Your task to perform on an android device: Go to location settings Image 0: 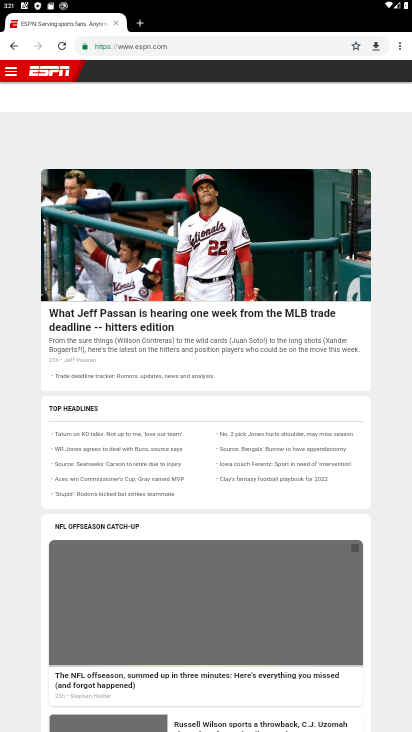
Step 0: press home button
Your task to perform on an android device: Go to location settings Image 1: 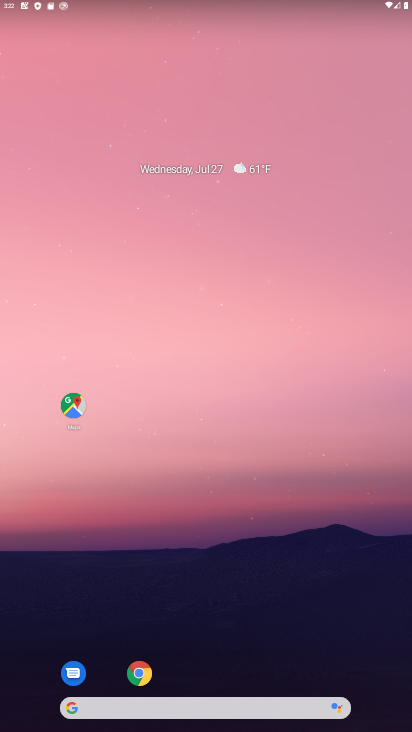
Step 1: click (345, 653)
Your task to perform on an android device: Go to location settings Image 2: 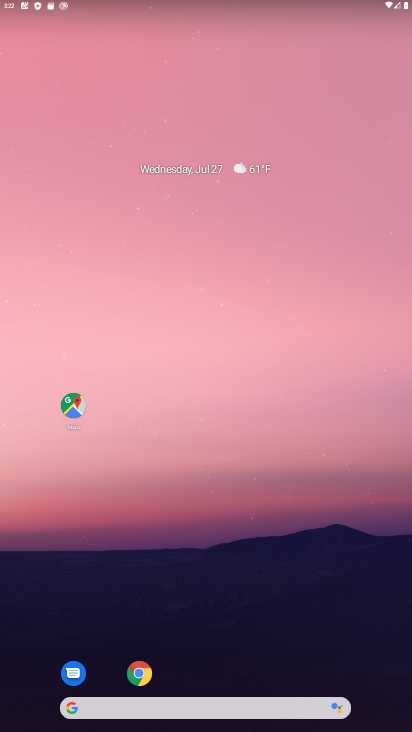
Step 2: drag from (345, 653) to (240, 240)
Your task to perform on an android device: Go to location settings Image 3: 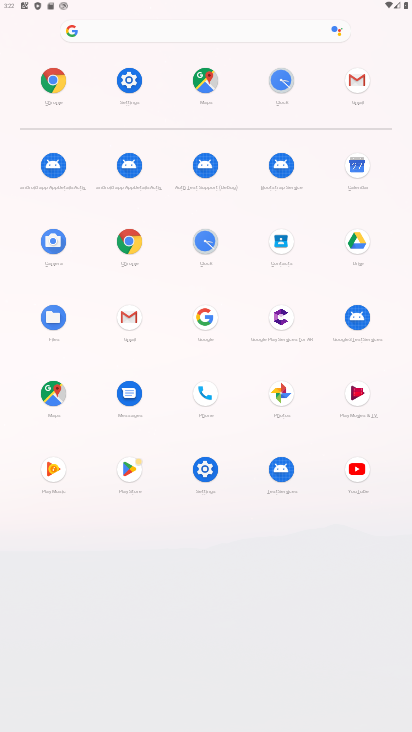
Step 3: click (208, 475)
Your task to perform on an android device: Go to location settings Image 4: 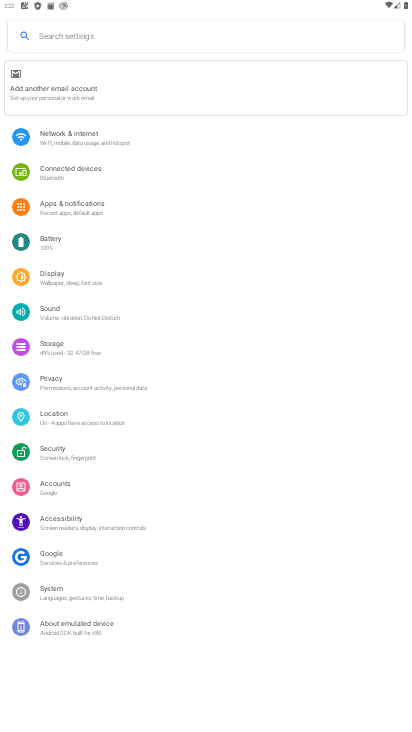
Step 4: click (70, 419)
Your task to perform on an android device: Go to location settings Image 5: 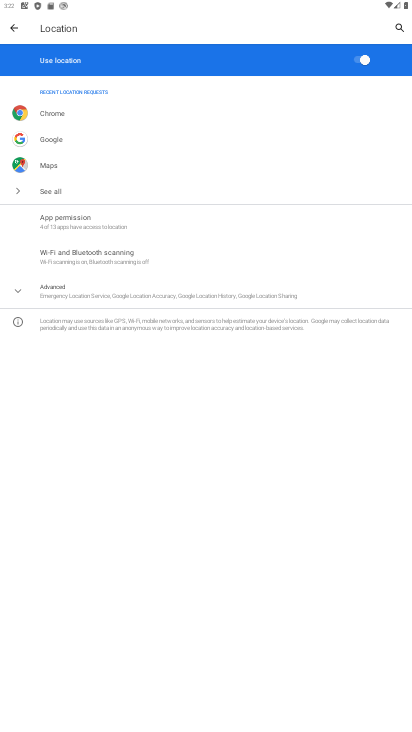
Step 5: task complete